Your task to perform on an android device: turn off smart reply in the gmail app Image 0: 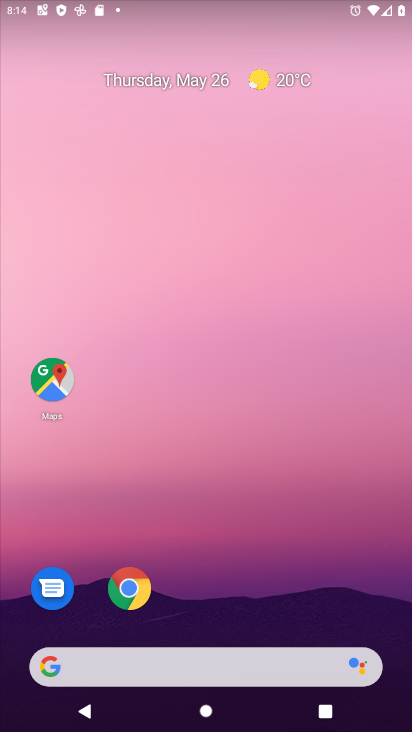
Step 0: drag from (388, 615) to (293, 75)
Your task to perform on an android device: turn off smart reply in the gmail app Image 1: 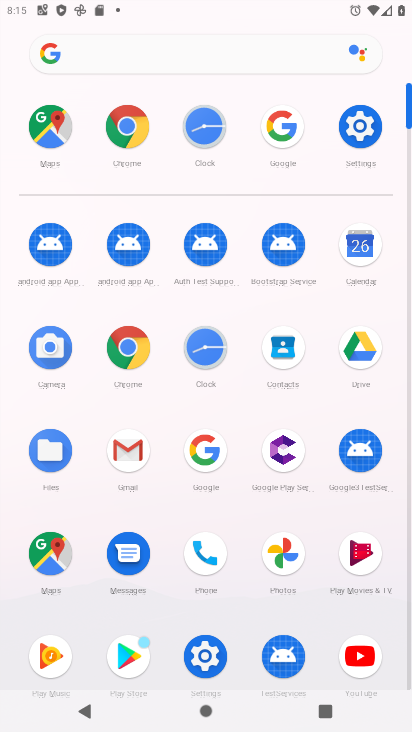
Step 1: click (131, 456)
Your task to perform on an android device: turn off smart reply in the gmail app Image 2: 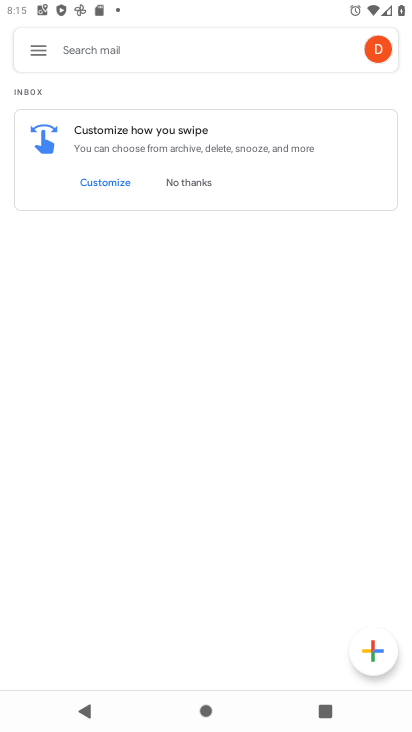
Step 2: click (42, 56)
Your task to perform on an android device: turn off smart reply in the gmail app Image 3: 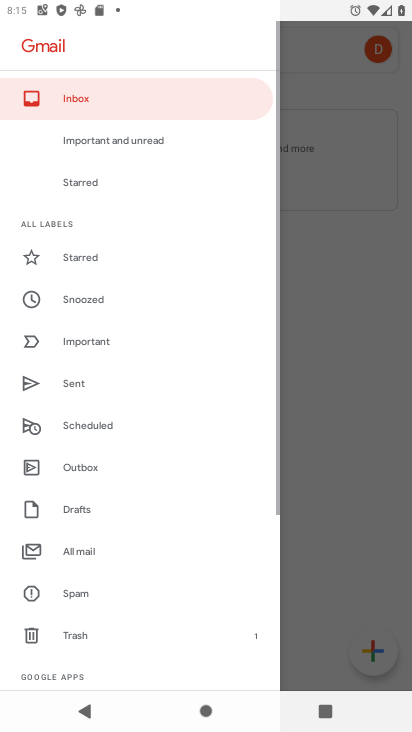
Step 3: drag from (80, 663) to (172, 126)
Your task to perform on an android device: turn off smart reply in the gmail app Image 4: 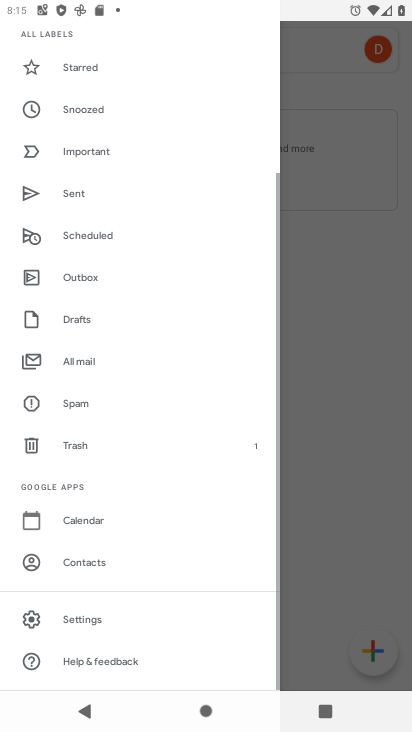
Step 4: click (121, 618)
Your task to perform on an android device: turn off smart reply in the gmail app Image 5: 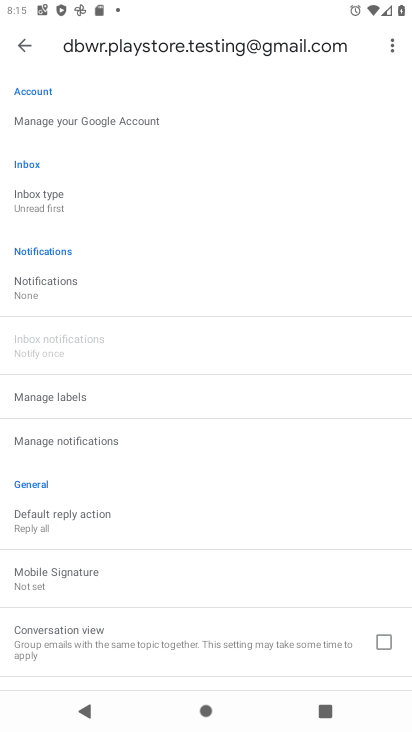
Step 5: drag from (124, 256) to (94, 682)
Your task to perform on an android device: turn off smart reply in the gmail app Image 6: 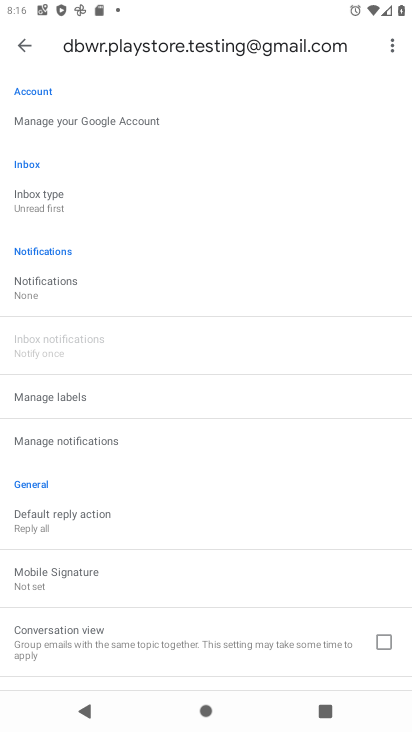
Step 6: drag from (103, 624) to (202, 34)
Your task to perform on an android device: turn off smart reply in the gmail app Image 7: 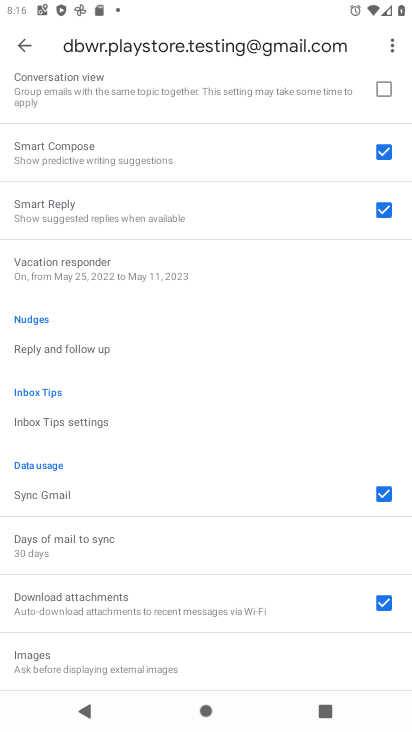
Step 7: drag from (214, 632) to (270, 329)
Your task to perform on an android device: turn off smart reply in the gmail app Image 8: 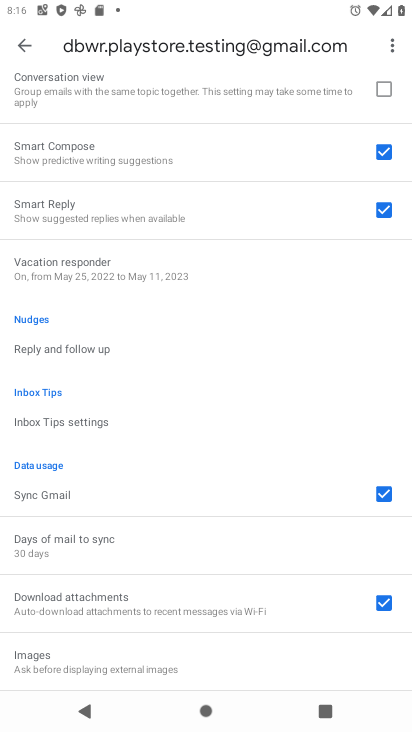
Step 8: click (327, 199)
Your task to perform on an android device: turn off smart reply in the gmail app Image 9: 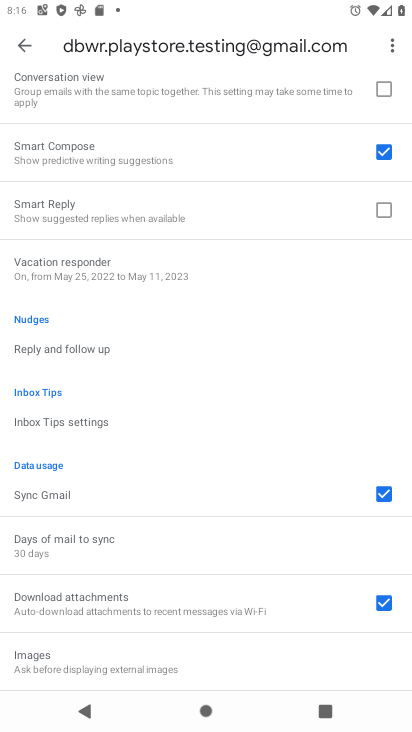
Step 9: task complete